Your task to perform on an android device: Show me recent news Image 0: 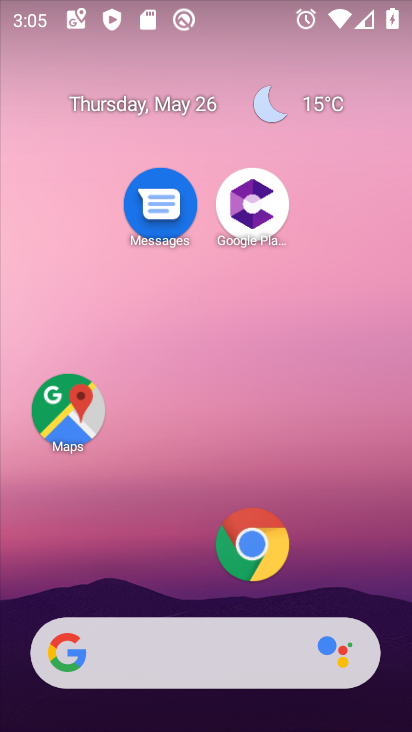
Step 0: click (168, 659)
Your task to perform on an android device: Show me recent news Image 1: 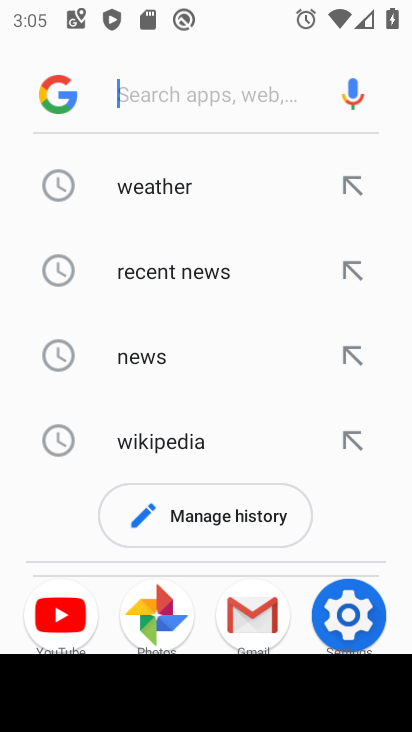
Step 1: click (280, 272)
Your task to perform on an android device: Show me recent news Image 2: 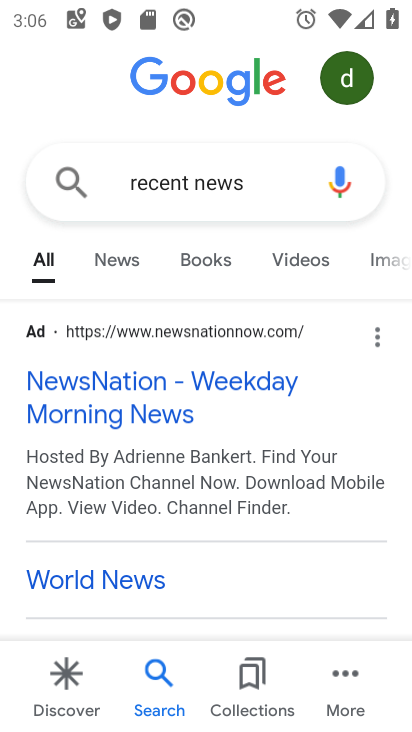
Step 2: task complete